Your task to perform on an android device: turn off priority inbox in the gmail app Image 0: 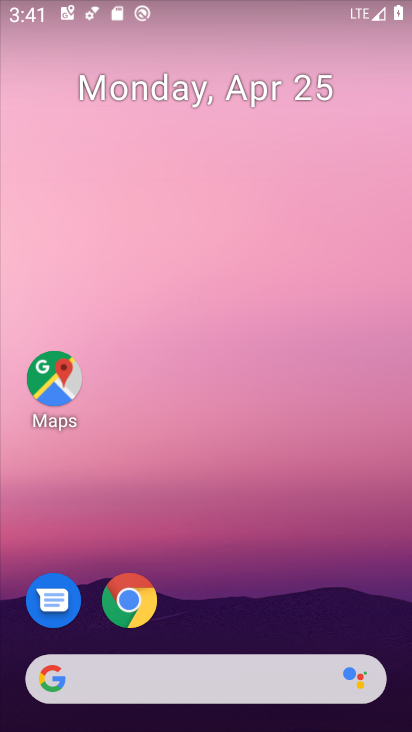
Step 0: drag from (291, 502) to (274, 22)
Your task to perform on an android device: turn off priority inbox in the gmail app Image 1: 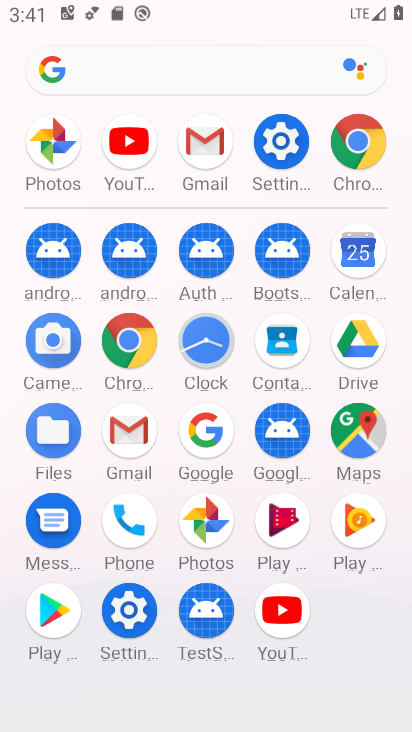
Step 1: click (205, 143)
Your task to perform on an android device: turn off priority inbox in the gmail app Image 2: 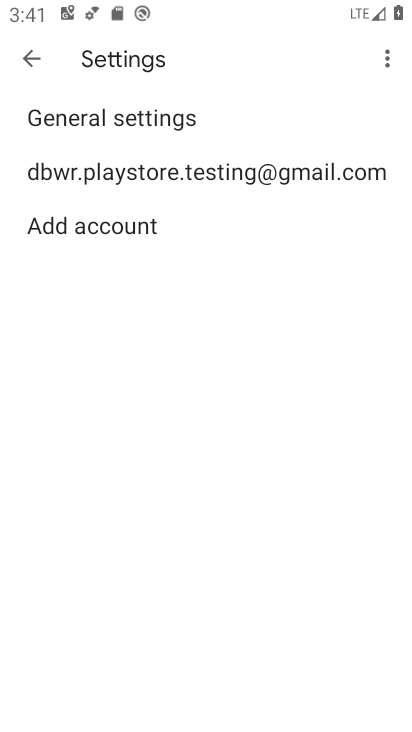
Step 2: click (193, 180)
Your task to perform on an android device: turn off priority inbox in the gmail app Image 3: 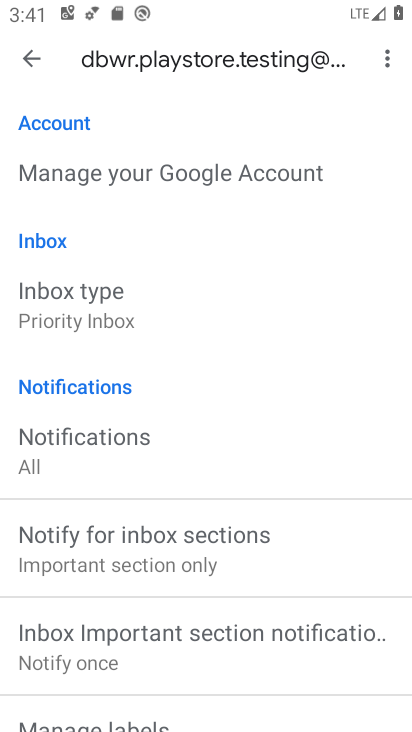
Step 3: drag from (253, 550) to (257, 298)
Your task to perform on an android device: turn off priority inbox in the gmail app Image 4: 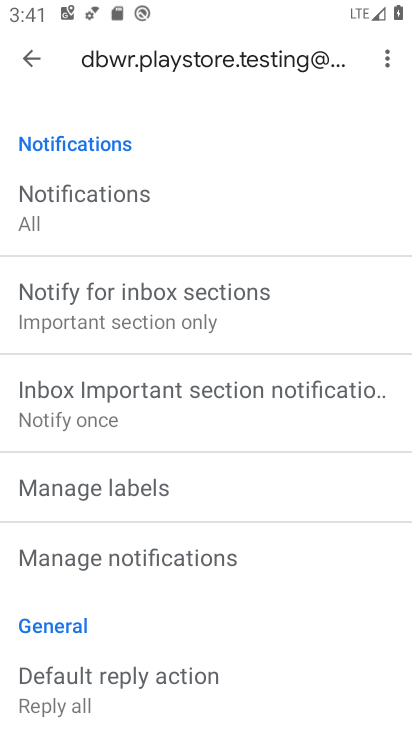
Step 4: drag from (244, 186) to (241, 491)
Your task to perform on an android device: turn off priority inbox in the gmail app Image 5: 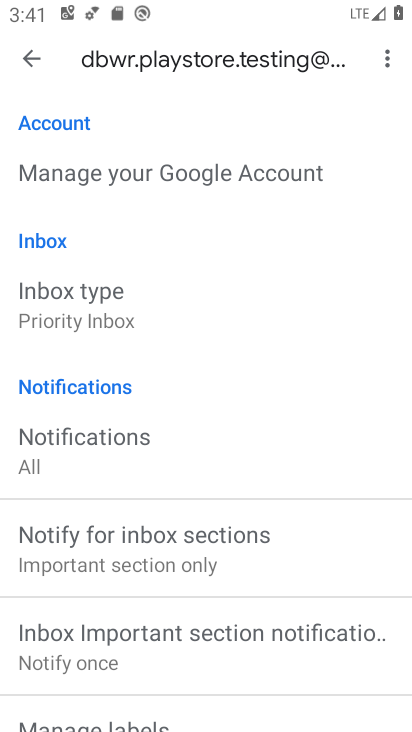
Step 5: click (156, 300)
Your task to perform on an android device: turn off priority inbox in the gmail app Image 6: 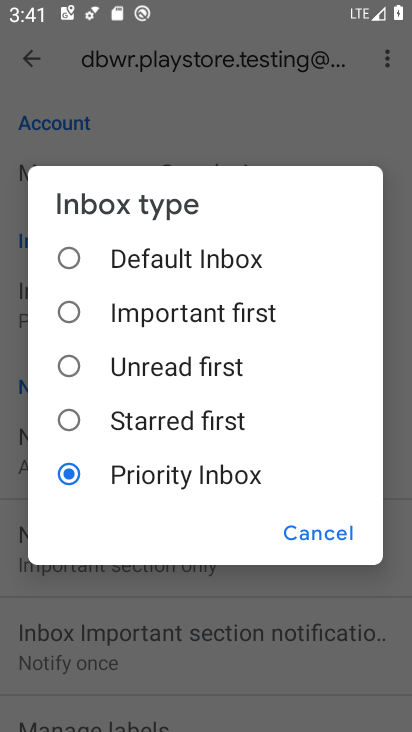
Step 6: click (141, 260)
Your task to perform on an android device: turn off priority inbox in the gmail app Image 7: 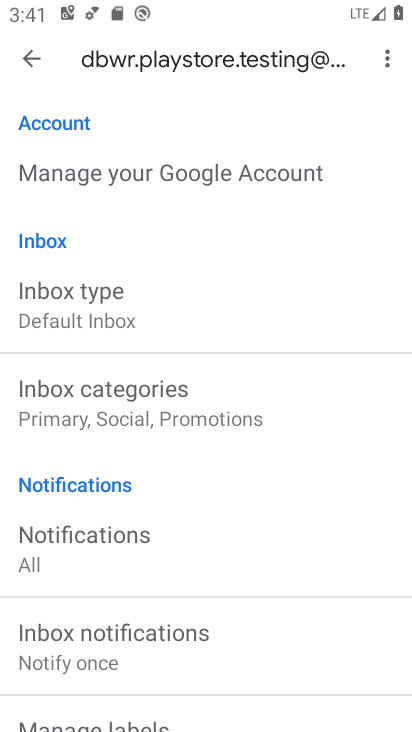
Step 7: task complete